Your task to perform on an android device: show emergency info Image 0: 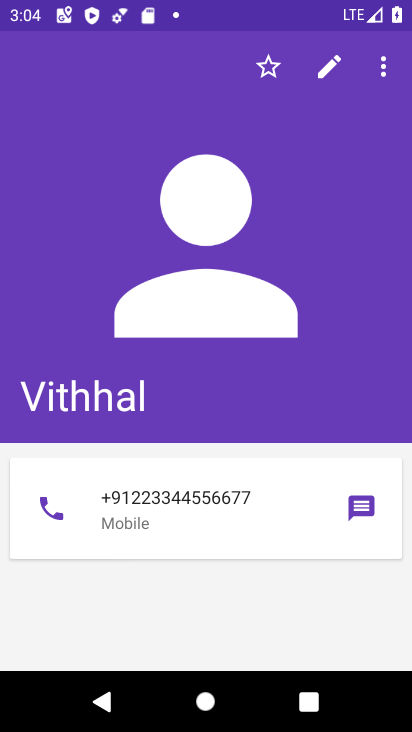
Step 0: press home button
Your task to perform on an android device: show emergency info Image 1: 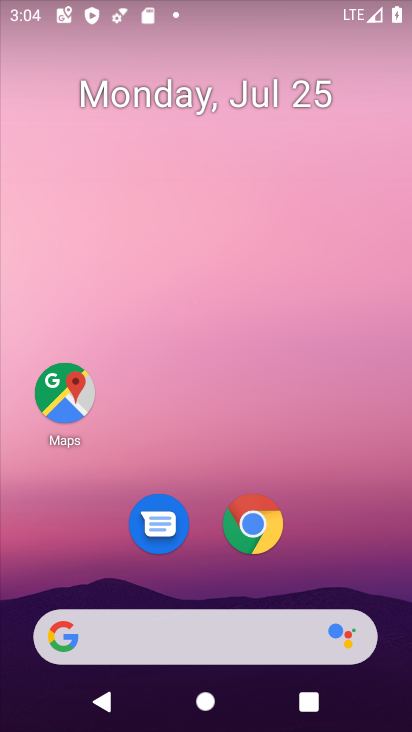
Step 1: drag from (317, 531) to (352, 67)
Your task to perform on an android device: show emergency info Image 2: 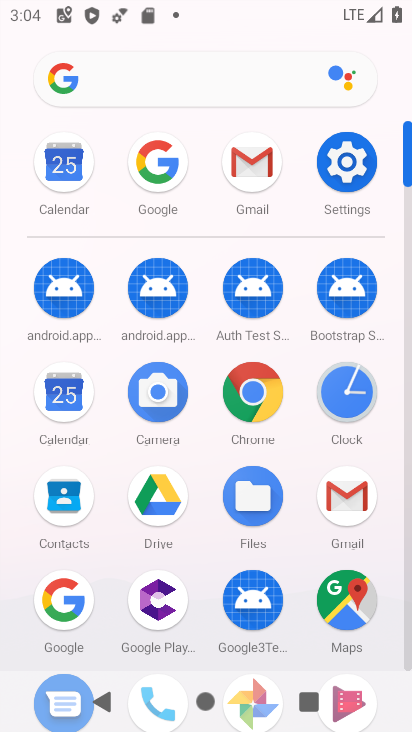
Step 2: click (352, 166)
Your task to perform on an android device: show emergency info Image 3: 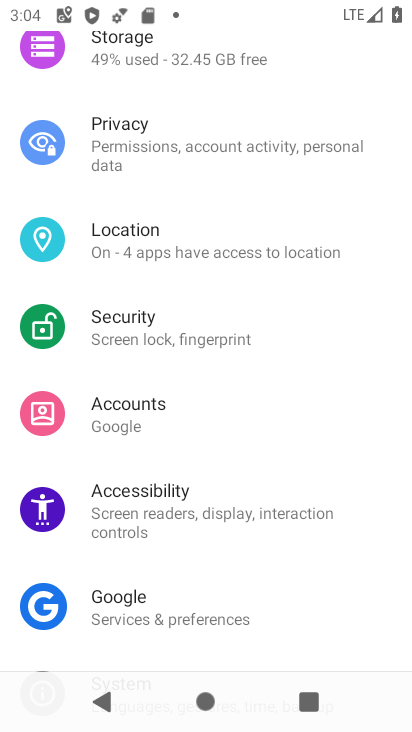
Step 3: drag from (216, 539) to (255, 110)
Your task to perform on an android device: show emergency info Image 4: 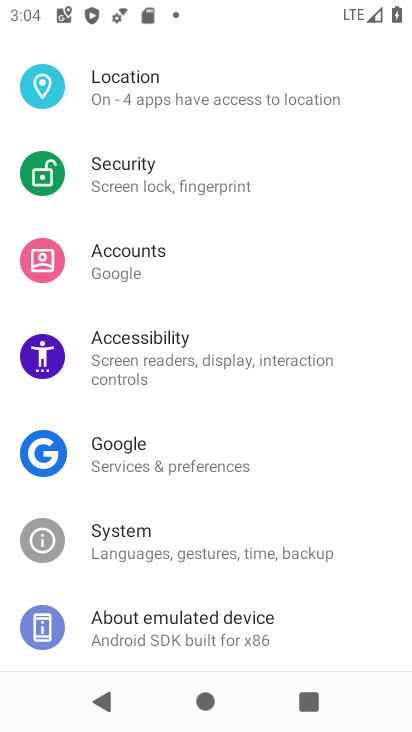
Step 4: drag from (196, 570) to (218, 416)
Your task to perform on an android device: show emergency info Image 5: 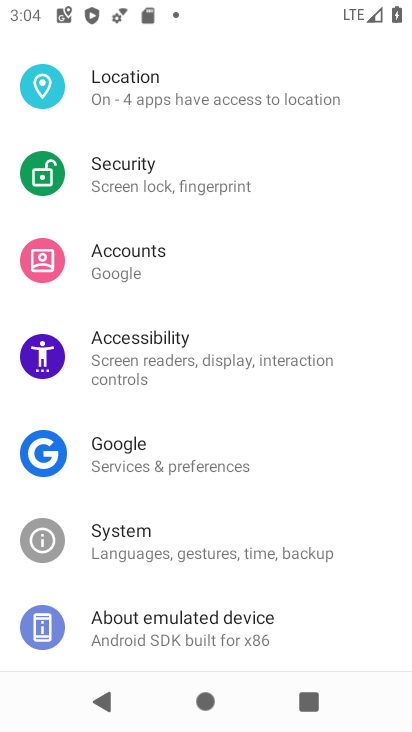
Step 5: click (170, 627)
Your task to perform on an android device: show emergency info Image 6: 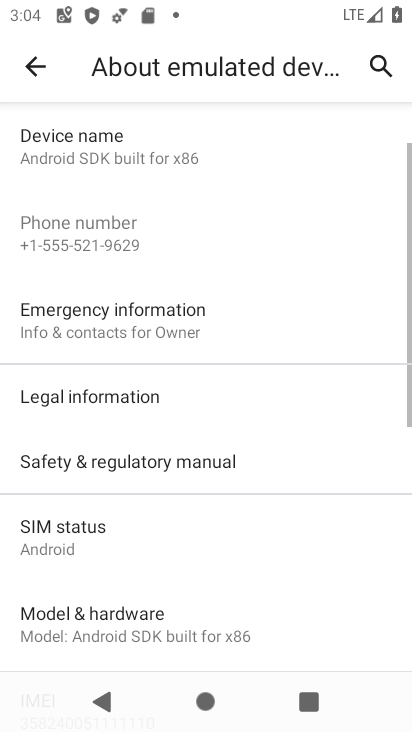
Step 6: click (177, 332)
Your task to perform on an android device: show emergency info Image 7: 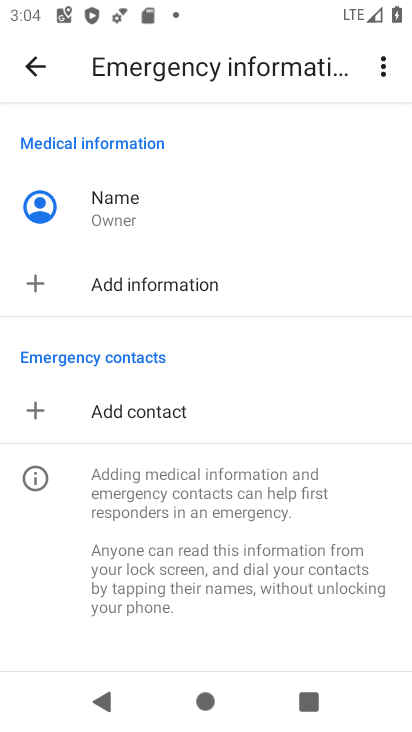
Step 7: task complete